Your task to perform on an android device: remove spam from my inbox in the gmail app Image 0: 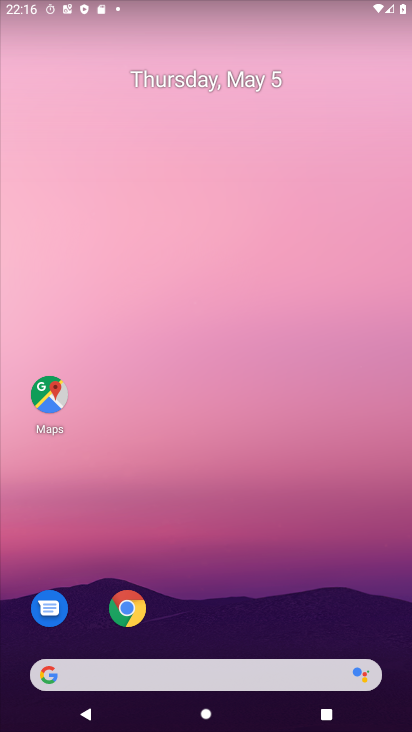
Step 0: drag from (371, 674) to (361, 9)
Your task to perform on an android device: remove spam from my inbox in the gmail app Image 1: 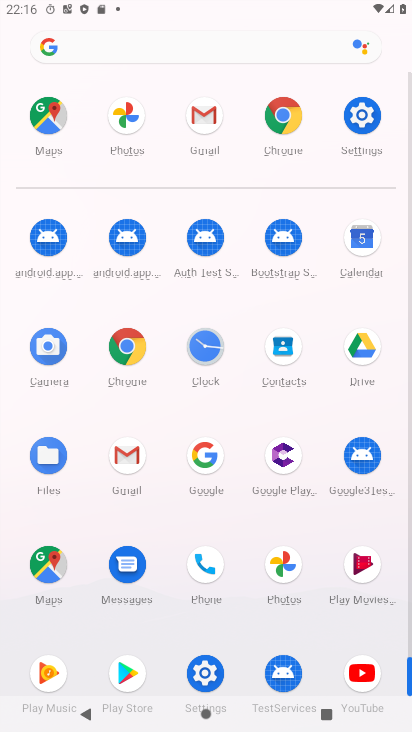
Step 1: click (127, 455)
Your task to perform on an android device: remove spam from my inbox in the gmail app Image 2: 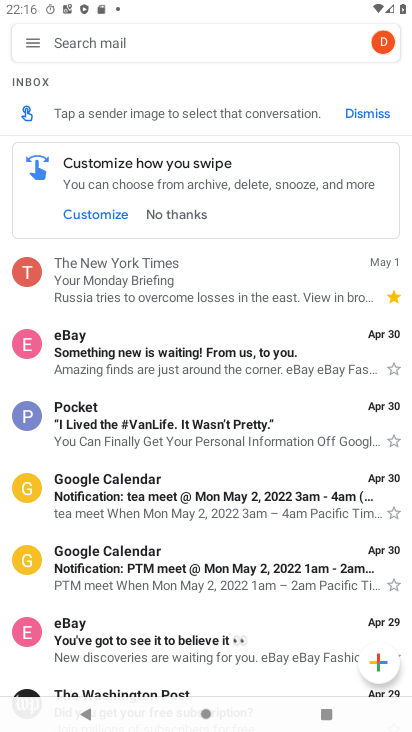
Step 2: click (33, 40)
Your task to perform on an android device: remove spam from my inbox in the gmail app Image 3: 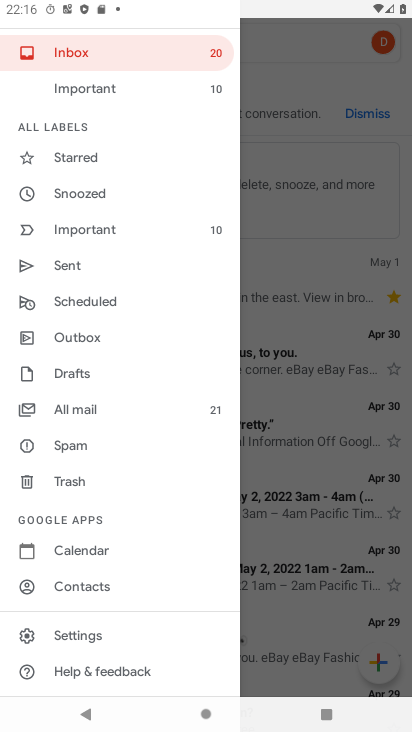
Step 3: click (83, 450)
Your task to perform on an android device: remove spam from my inbox in the gmail app Image 4: 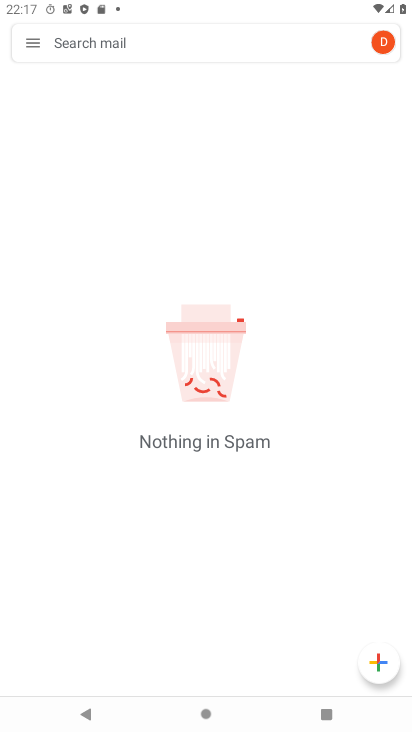
Step 4: task complete